Your task to perform on an android device: make emails show in primary in the gmail app Image 0: 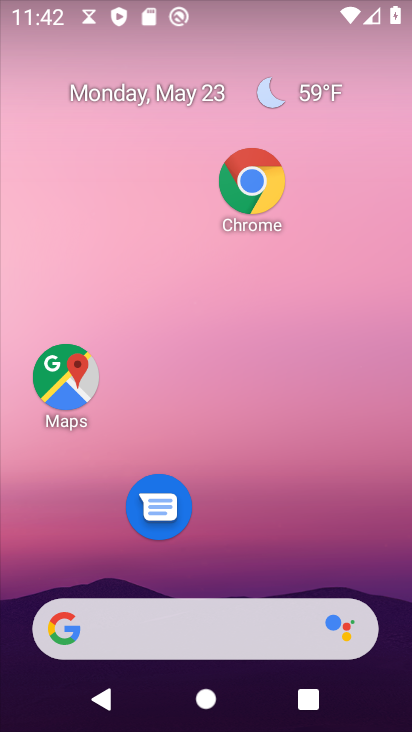
Step 0: drag from (347, 488) to (328, 4)
Your task to perform on an android device: make emails show in primary in the gmail app Image 1: 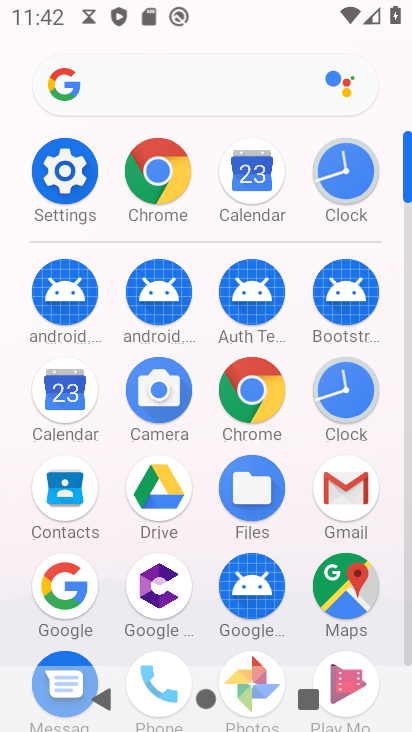
Step 1: click (342, 471)
Your task to perform on an android device: make emails show in primary in the gmail app Image 2: 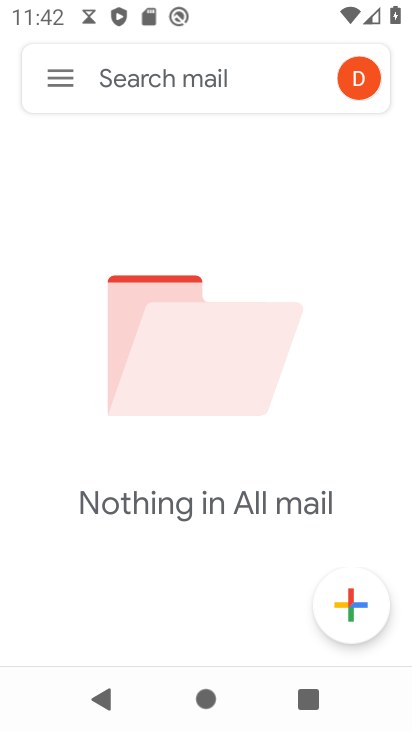
Step 2: click (72, 77)
Your task to perform on an android device: make emails show in primary in the gmail app Image 3: 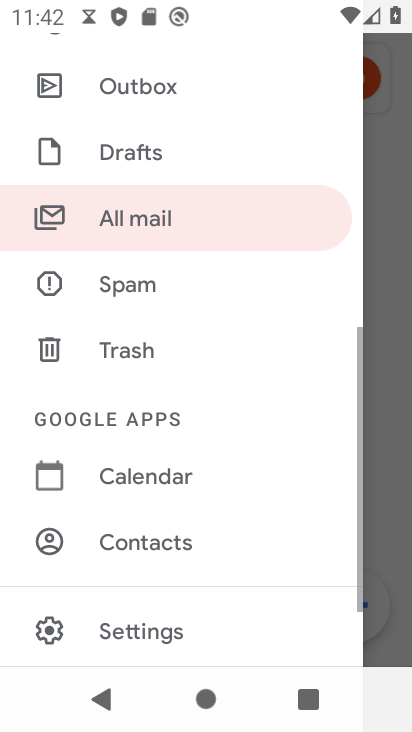
Step 3: click (150, 638)
Your task to perform on an android device: make emails show in primary in the gmail app Image 4: 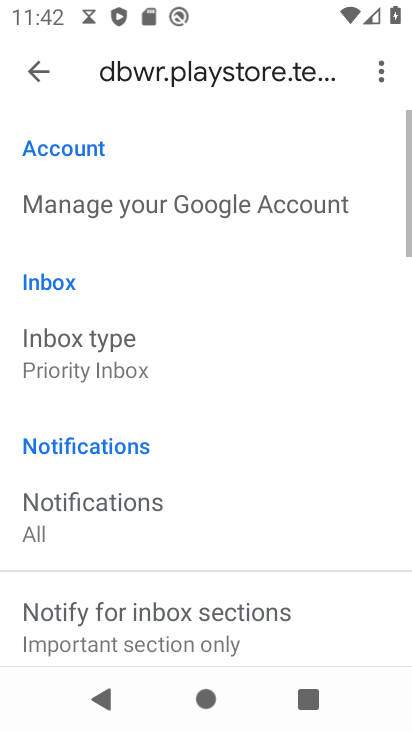
Step 4: task complete